Your task to perform on an android device: turn off picture-in-picture Image 0: 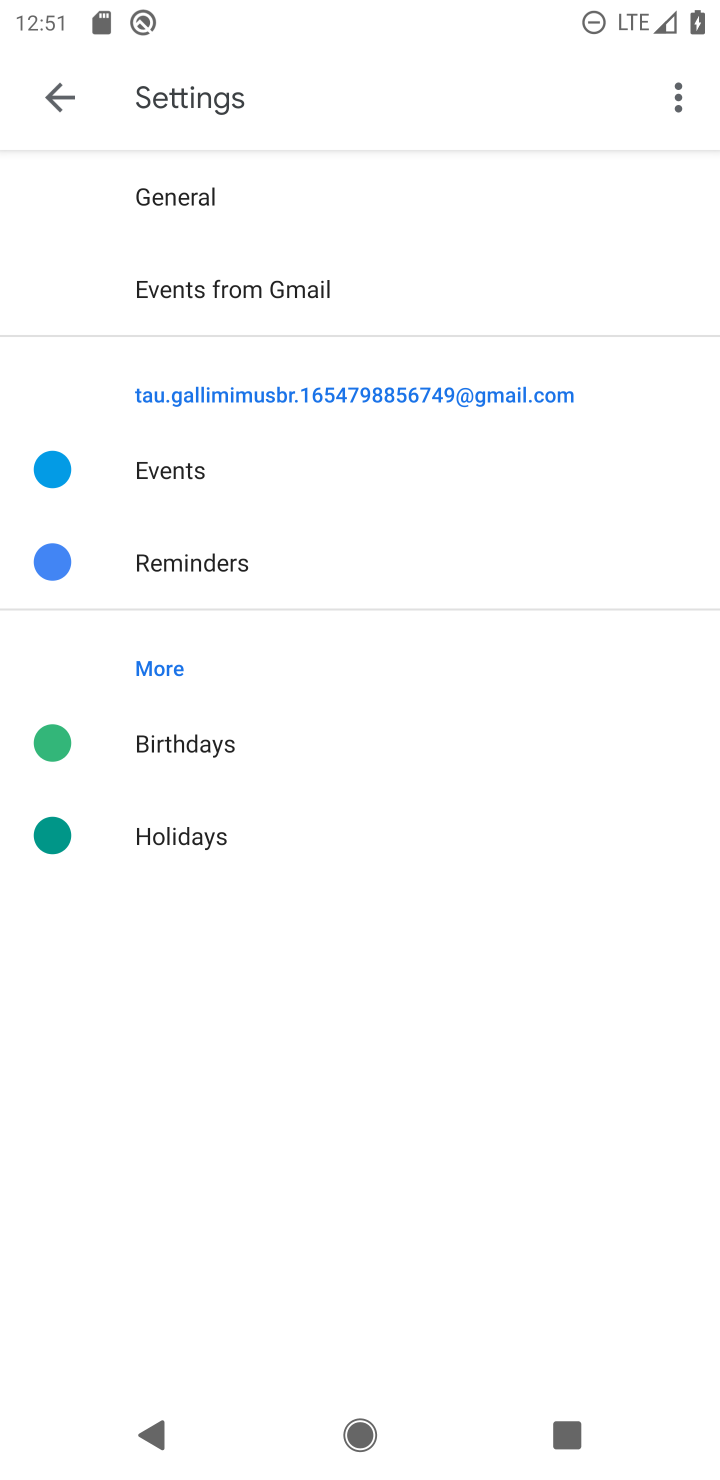
Step 0: press home button
Your task to perform on an android device: turn off picture-in-picture Image 1: 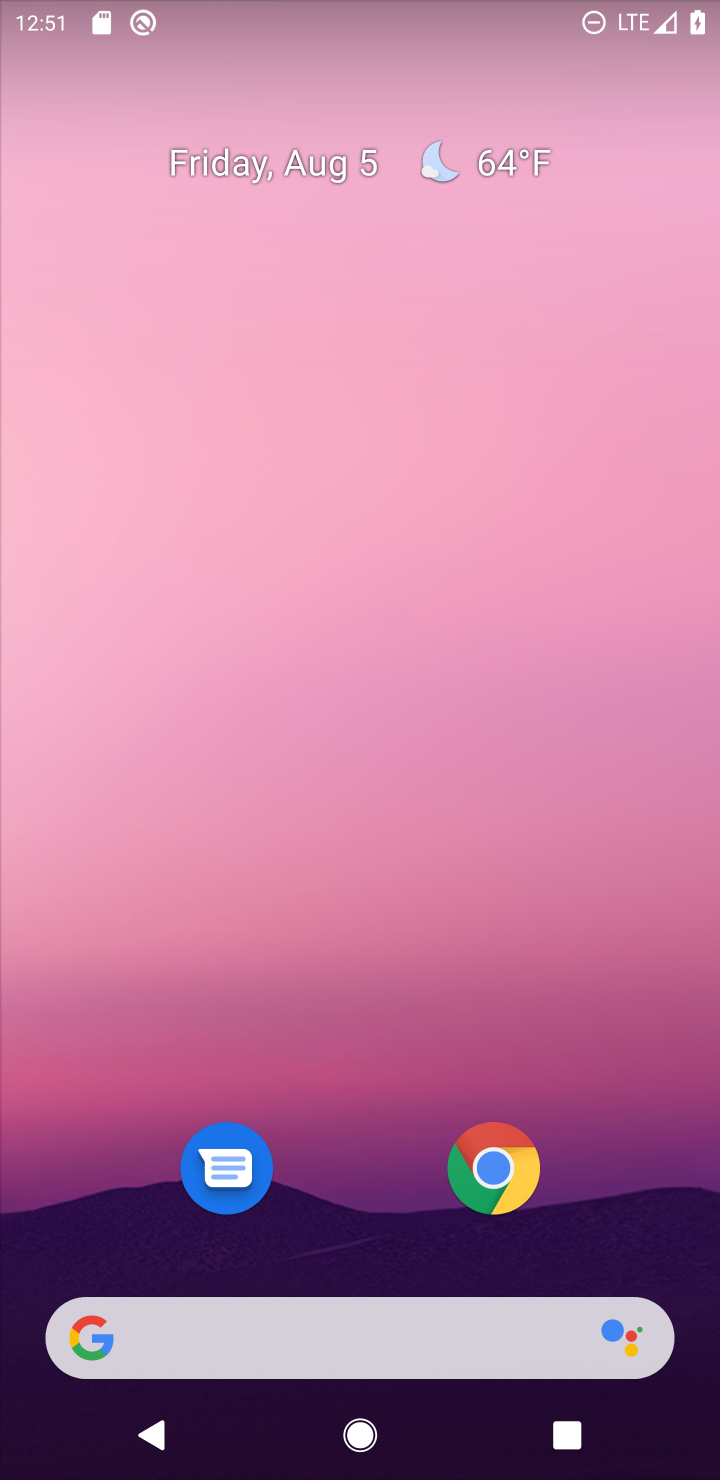
Step 1: drag from (648, 965) to (430, 6)
Your task to perform on an android device: turn off picture-in-picture Image 2: 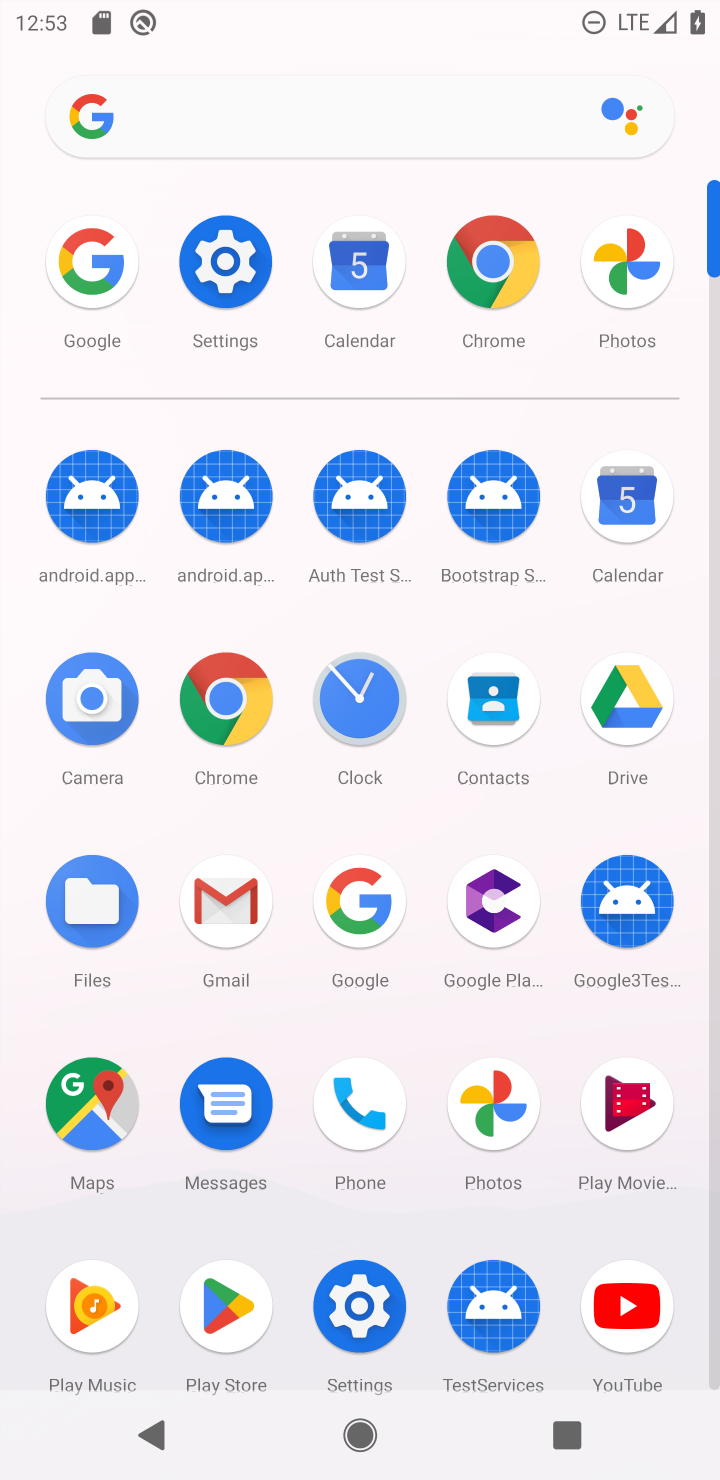
Step 2: click (214, 688)
Your task to perform on an android device: turn off picture-in-picture Image 3: 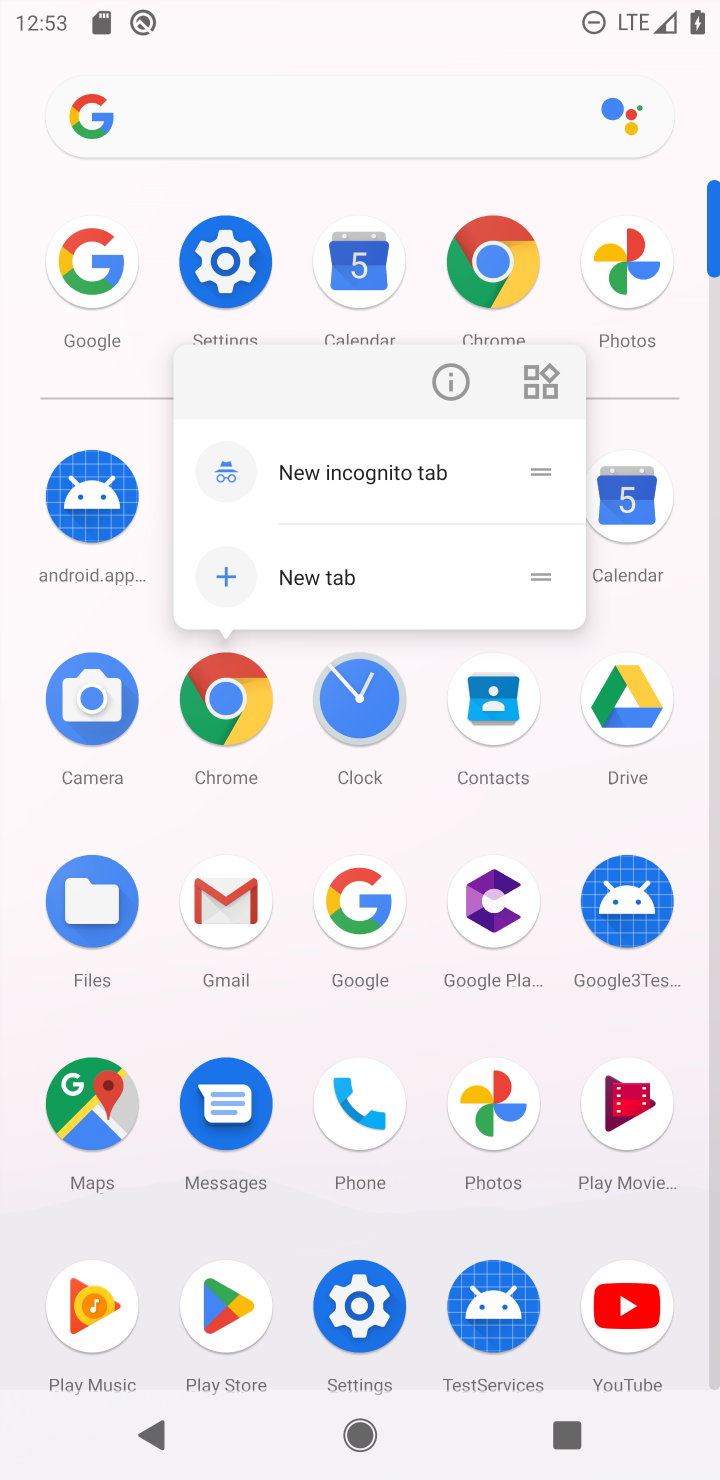
Step 3: click (214, 688)
Your task to perform on an android device: turn off picture-in-picture Image 4: 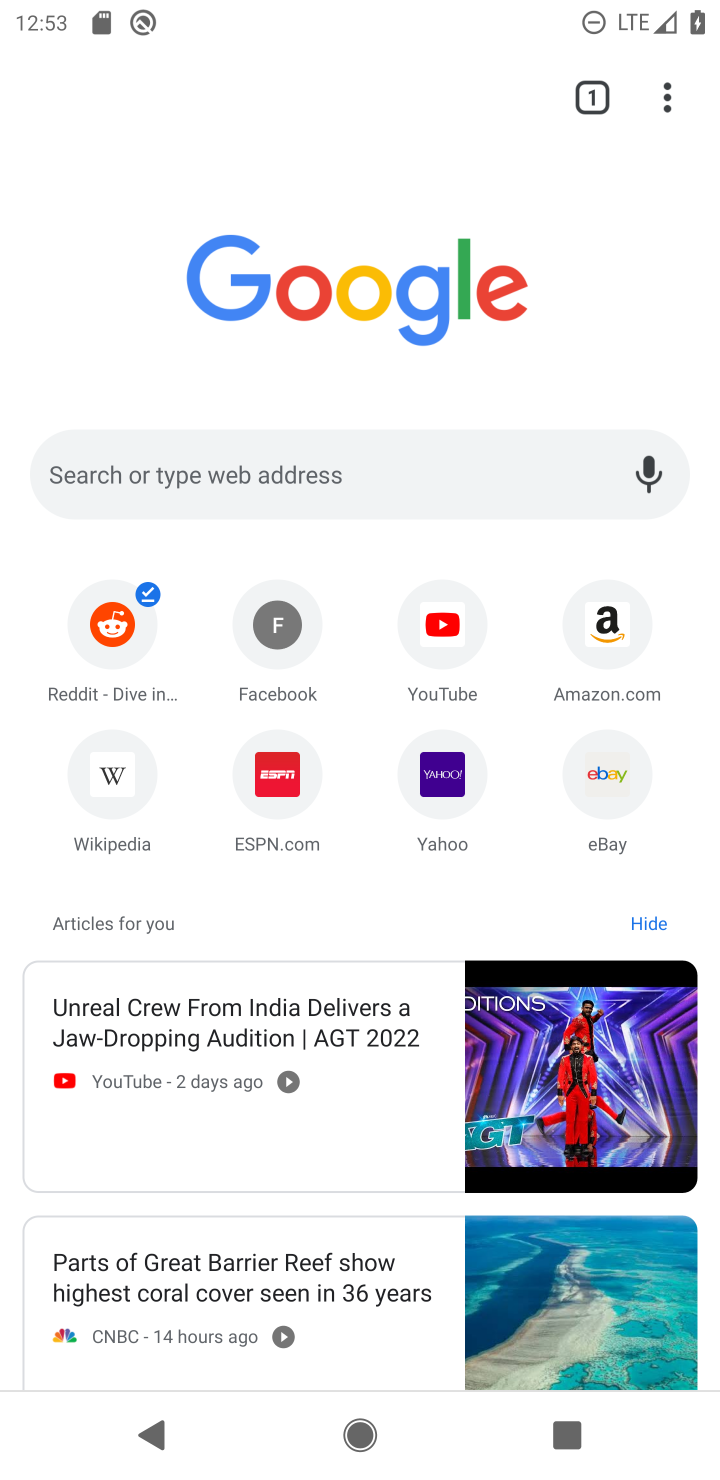
Step 4: task complete